Your task to perform on an android device: Open ESPN.com Image 0: 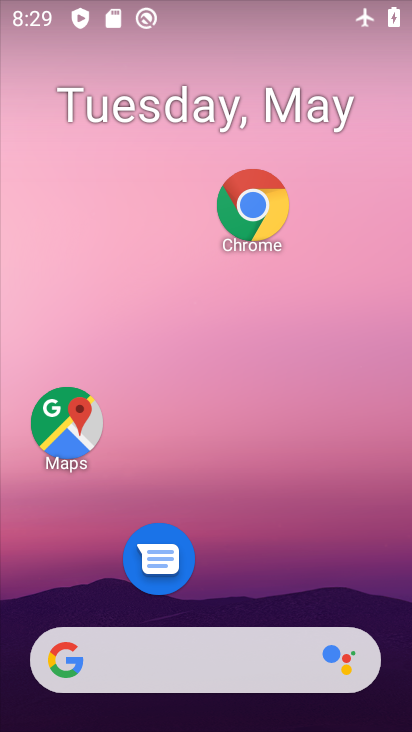
Step 0: click (243, 219)
Your task to perform on an android device: Open ESPN.com Image 1: 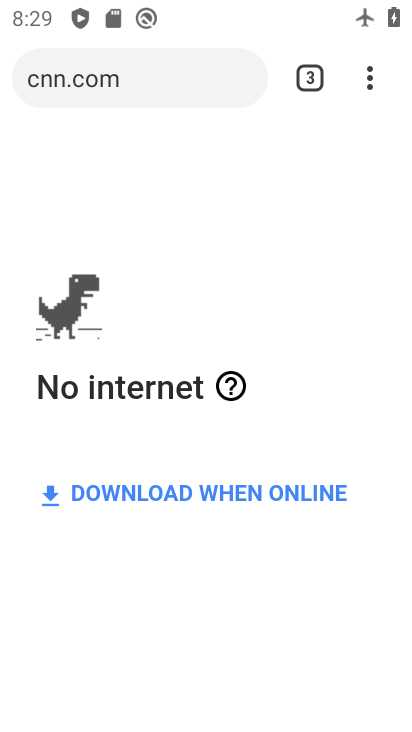
Step 1: click (320, 63)
Your task to perform on an android device: Open ESPN.com Image 2: 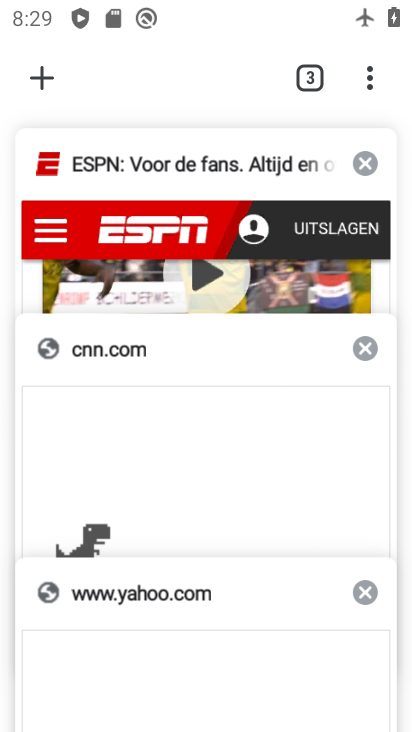
Step 2: click (48, 80)
Your task to perform on an android device: Open ESPN.com Image 3: 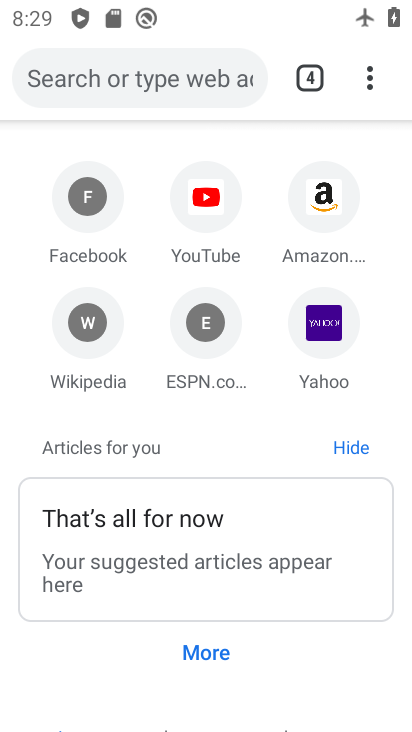
Step 3: click (197, 319)
Your task to perform on an android device: Open ESPN.com Image 4: 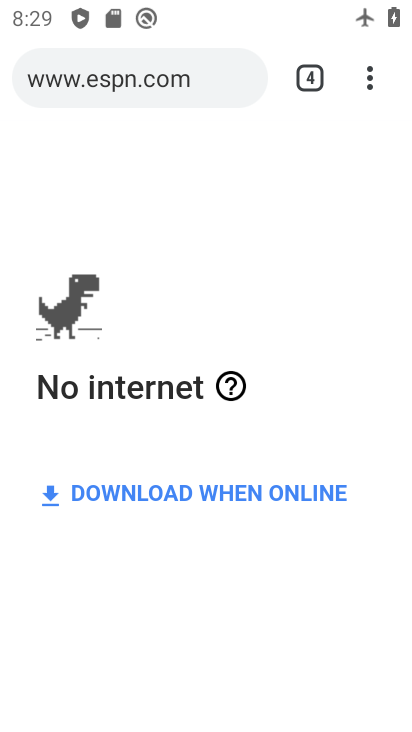
Step 4: task complete